Your task to perform on an android device: Go to location settings Image 0: 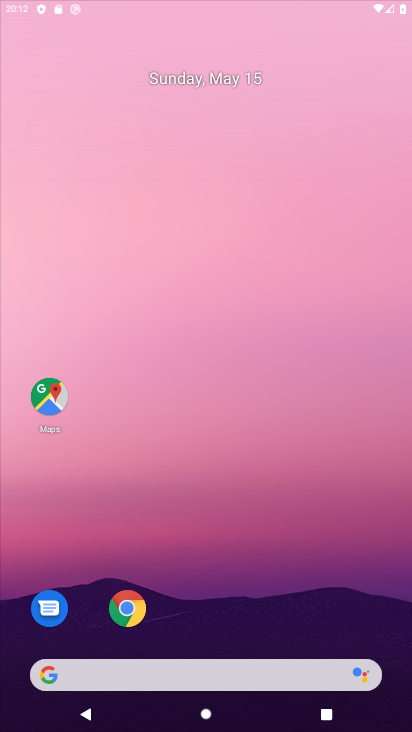
Step 0: click (254, 116)
Your task to perform on an android device: Go to location settings Image 1: 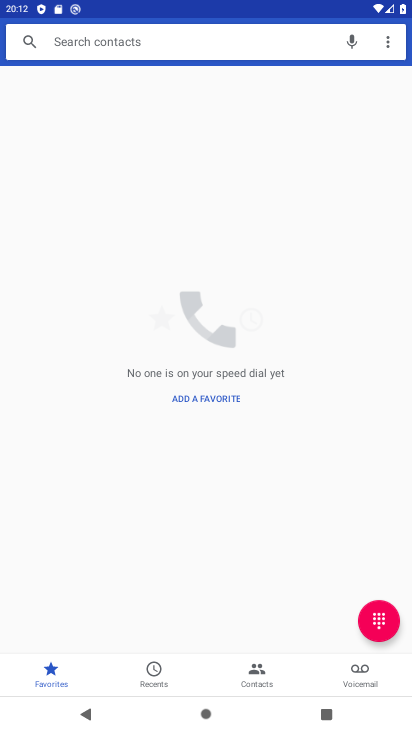
Step 1: press back button
Your task to perform on an android device: Go to location settings Image 2: 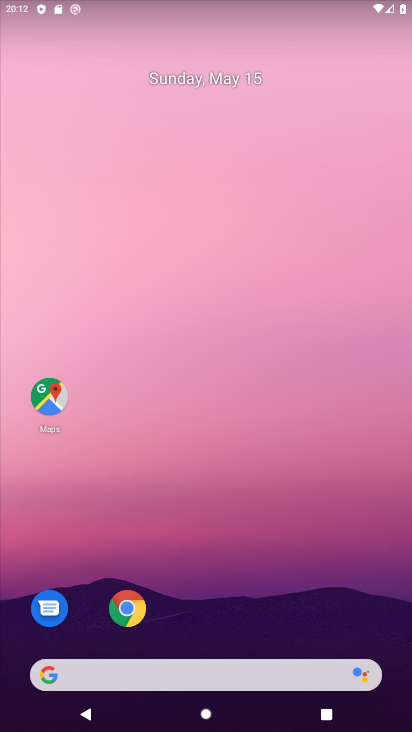
Step 2: drag from (211, 606) to (306, 38)
Your task to perform on an android device: Go to location settings Image 3: 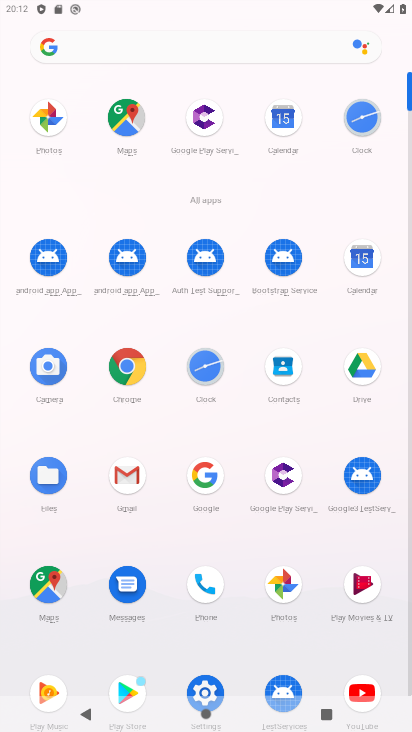
Step 3: click (201, 682)
Your task to perform on an android device: Go to location settings Image 4: 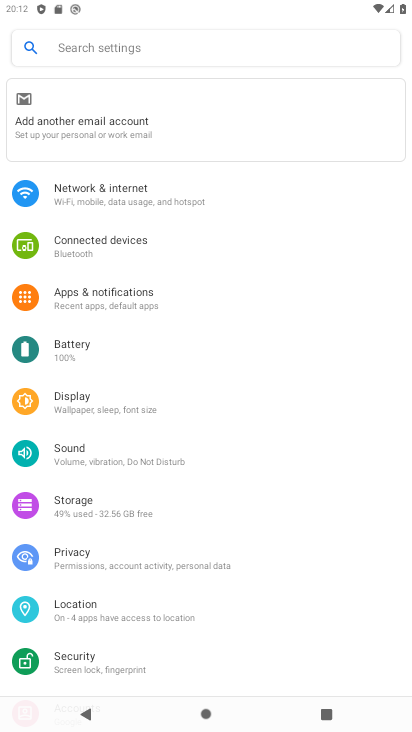
Step 4: click (87, 599)
Your task to perform on an android device: Go to location settings Image 5: 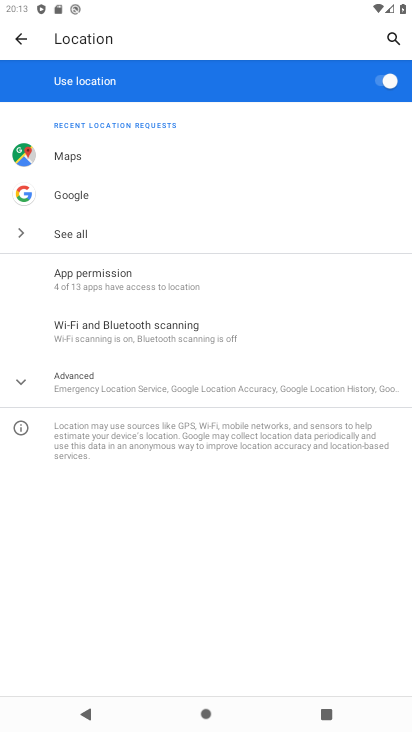
Step 5: task complete